Your task to perform on an android device: empty trash in google photos Image 0: 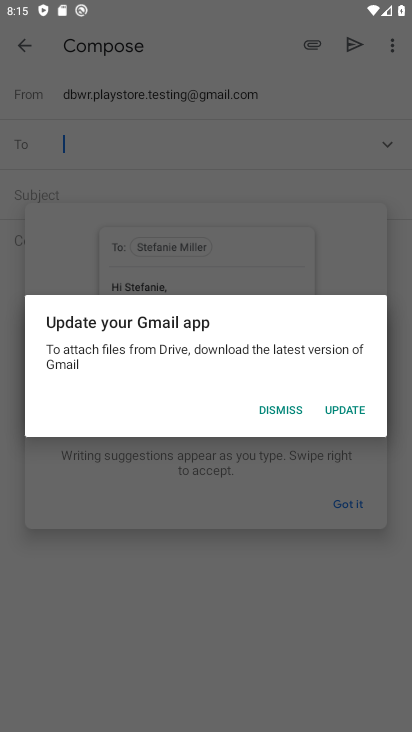
Step 0: press home button
Your task to perform on an android device: empty trash in google photos Image 1: 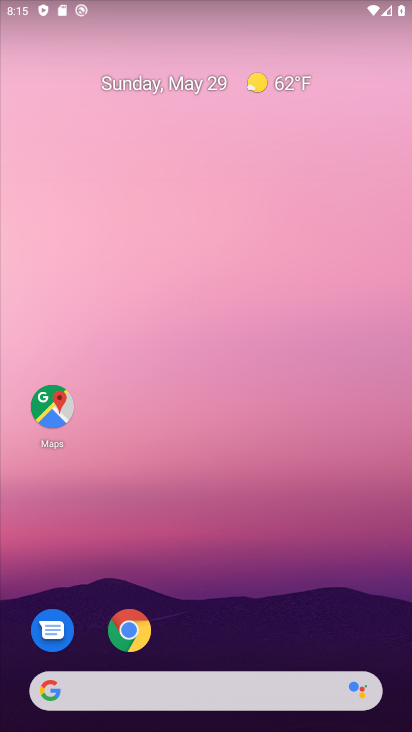
Step 1: drag from (388, 457) to (351, 144)
Your task to perform on an android device: empty trash in google photos Image 2: 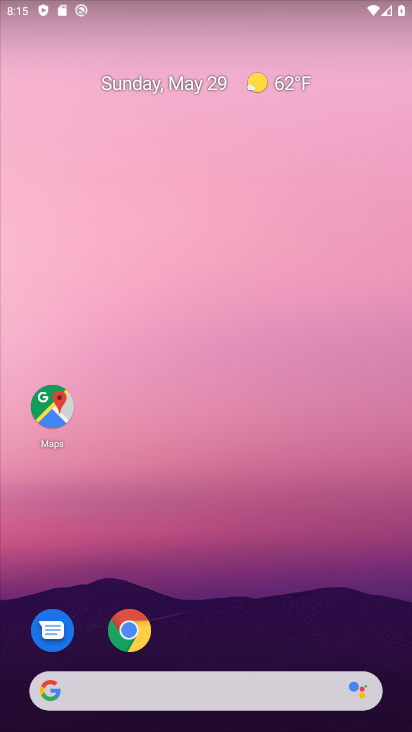
Step 2: drag from (397, 716) to (310, 96)
Your task to perform on an android device: empty trash in google photos Image 3: 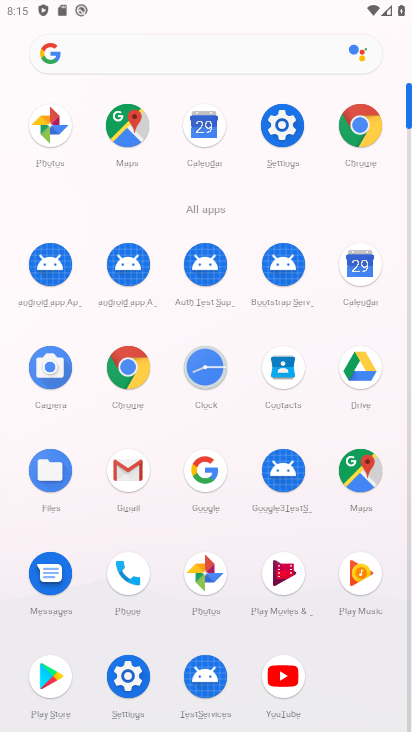
Step 3: click (200, 568)
Your task to perform on an android device: empty trash in google photos Image 4: 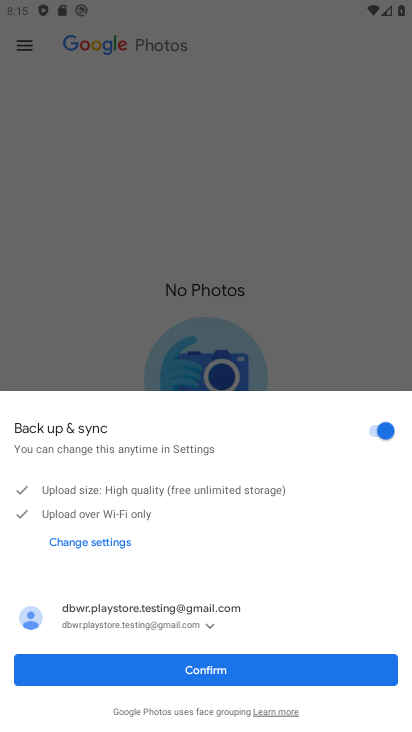
Step 4: click (206, 665)
Your task to perform on an android device: empty trash in google photos Image 5: 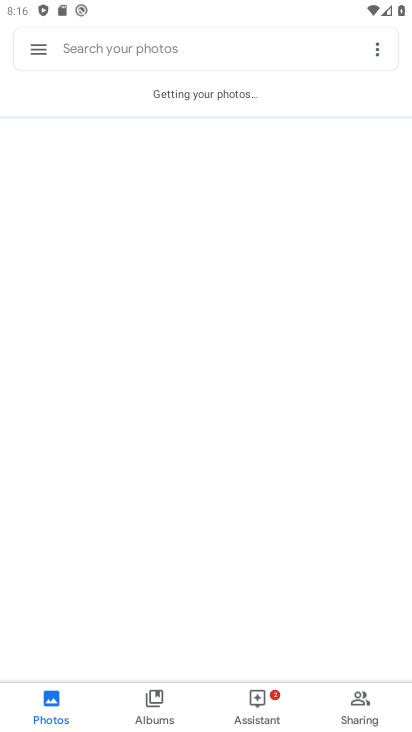
Step 5: click (41, 51)
Your task to perform on an android device: empty trash in google photos Image 6: 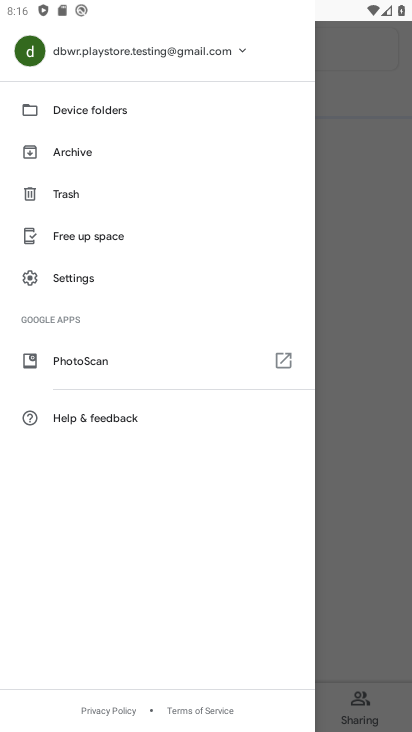
Step 6: click (61, 194)
Your task to perform on an android device: empty trash in google photos Image 7: 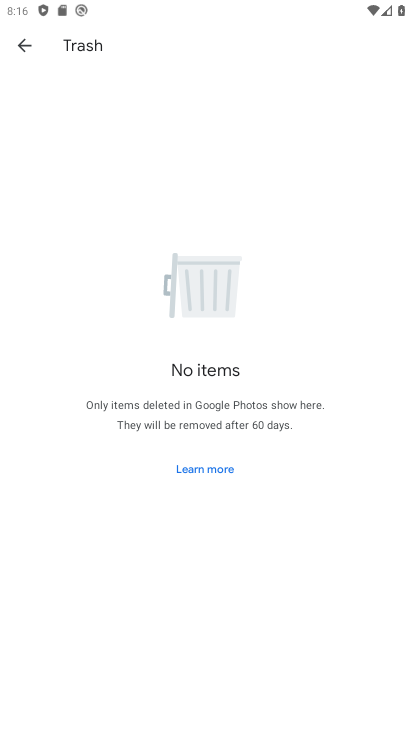
Step 7: task complete